Your task to perform on an android device: visit the assistant section in the google photos Image 0: 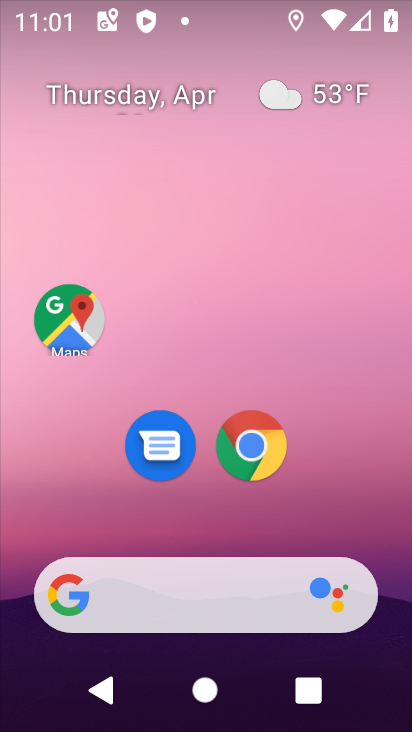
Step 0: drag from (158, 581) to (265, 140)
Your task to perform on an android device: visit the assistant section in the google photos Image 1: 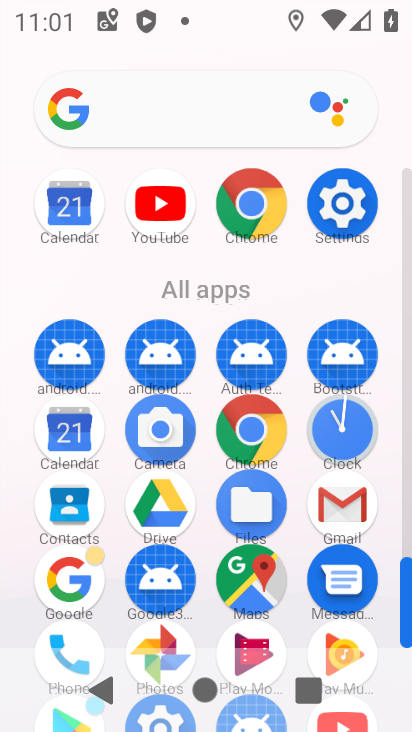
Step 1: drag from (123, 606) to (283, 164)
Your task to perform on an android device: visit the assistant section in the google photos Image 2: 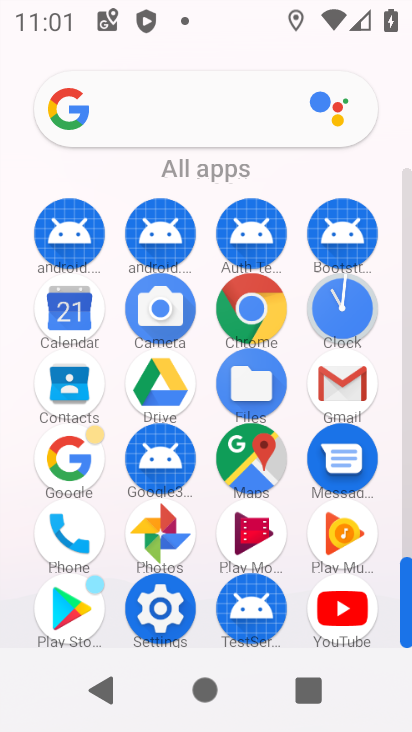
Step 2: click (164, 539)
Your task to perform on an android device: visit the assistant section in the google photos Image 3: 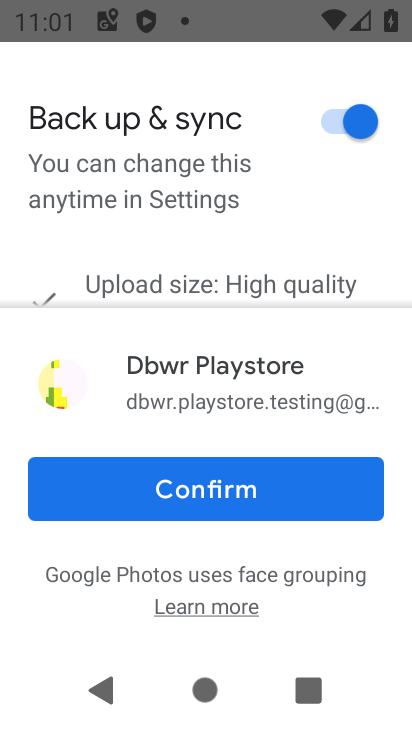
Step 3: click (192, 498)
Your task to perform on an android device: visit the assistant section in the google photos Image 4: 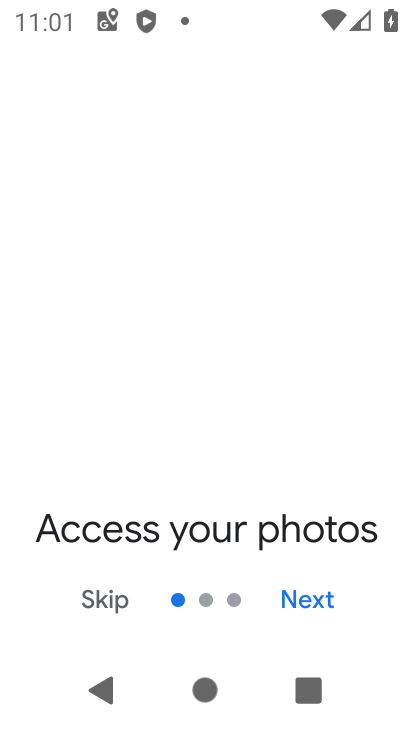
Step 4: click (310, 604)
Your task to perform on an android device: visit the assistant section in the google photos Image 5: 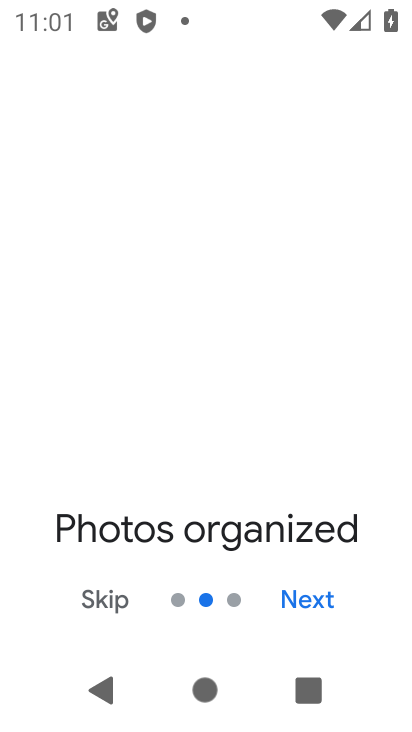
Step 5: click (310, 604)
Your task to perform on an android device: visit the assistant section in the google photos Image 6: 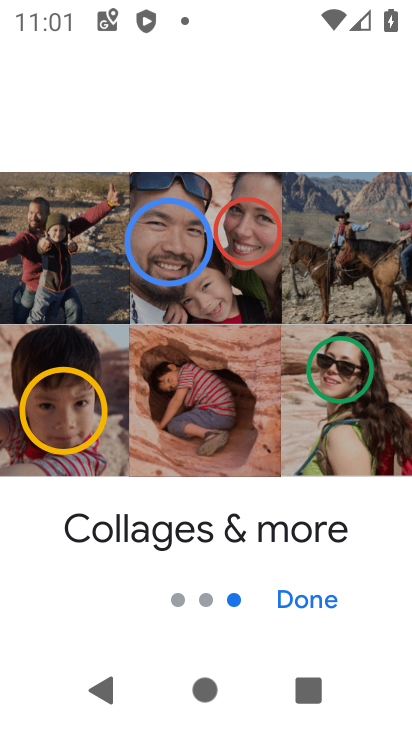
Step 6: click (301, 603)
Your task to perform on an android device: visit the assistant section in the google photos Image 7: 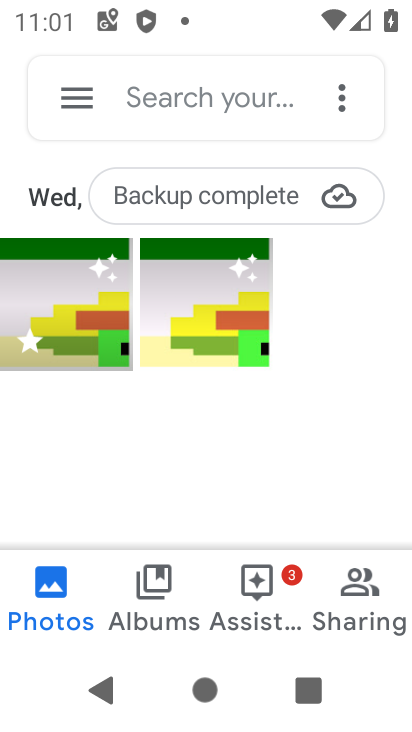
Step 7: click (246, 619)
Your task to perform on an android device: visit the assistant section in the google photos Image 8: 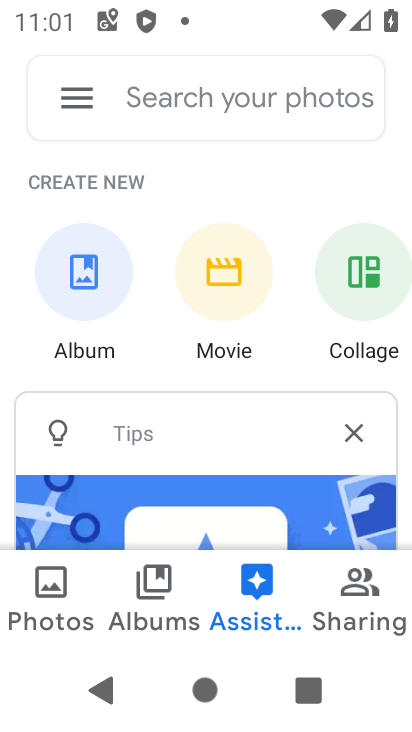
Step 8: task complete